Your task to perform on an android device: Clear all items from cart on bestbuy. Search for energizer triple a on bestbuy, select the first entry, and add it to the cart. Image 0: 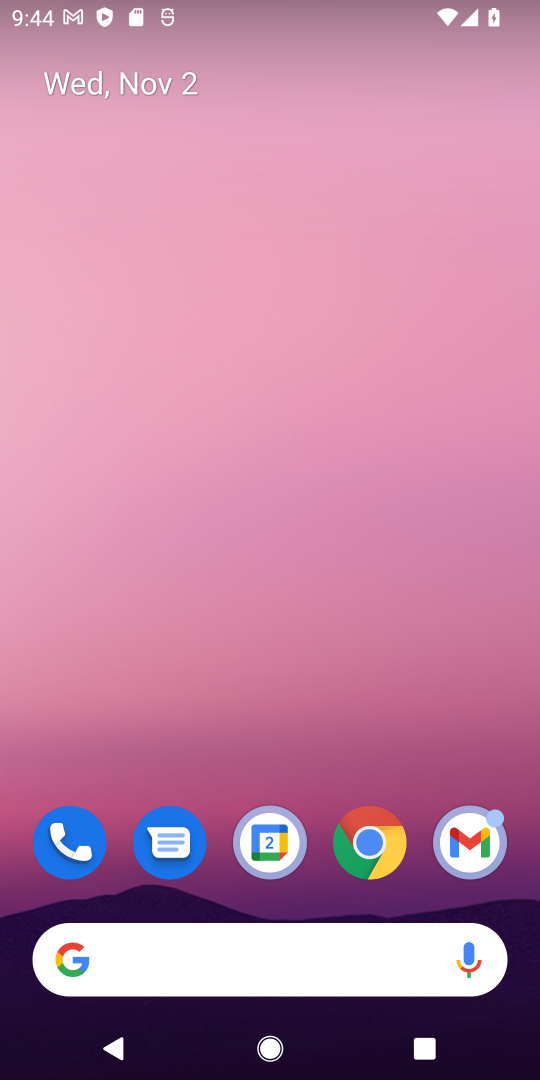
Step 0: drag from (260, 574) to (295, 223)
Your task to perform on an android device: Clear all items from cart on bestbuy. Search for energizer triple a on bestbuy, select the first entry, and add it to the cart. Image 1: 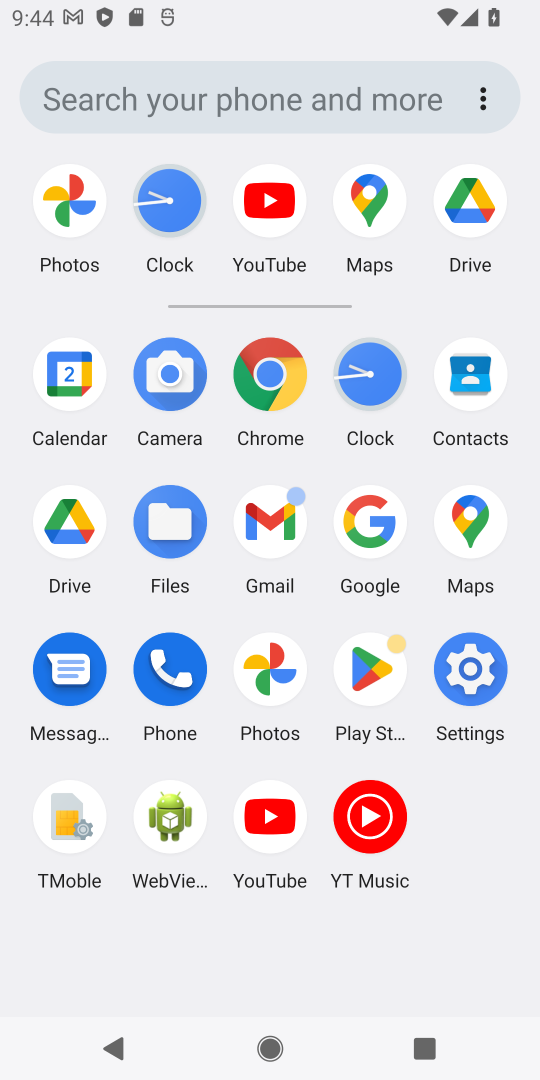
Step 1: click (357, 520)
Your task to perform on an android device: Clear all items from cart on bestbuy. Search for energizer triple a on bestbuy, select the first entry, and add it to the cart. Image 2: 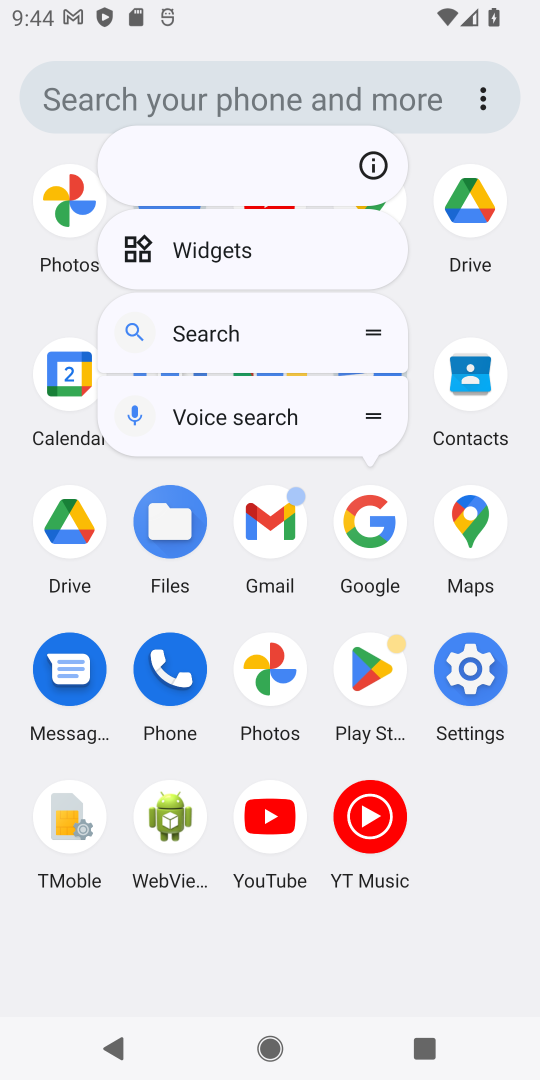
Step 2: click (367, 508)
Your task to perform on an android device: Clear all items from cart on bestbuy. Search for energizer triple a on bestbuy, select the first entry, and add it to the cart. Image 3: 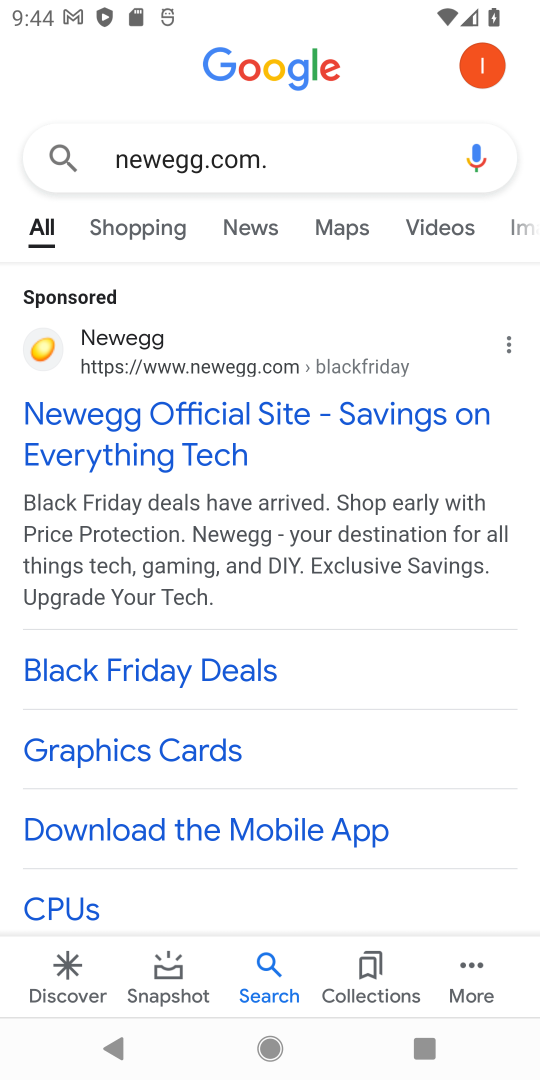
Step 3: click (212, 151)
Your task to perform on an android device: Clear all items from cart on bestbuy. Search for energizer triple a on bestbuy, select the first entry, and add it to the cart. Image 4: 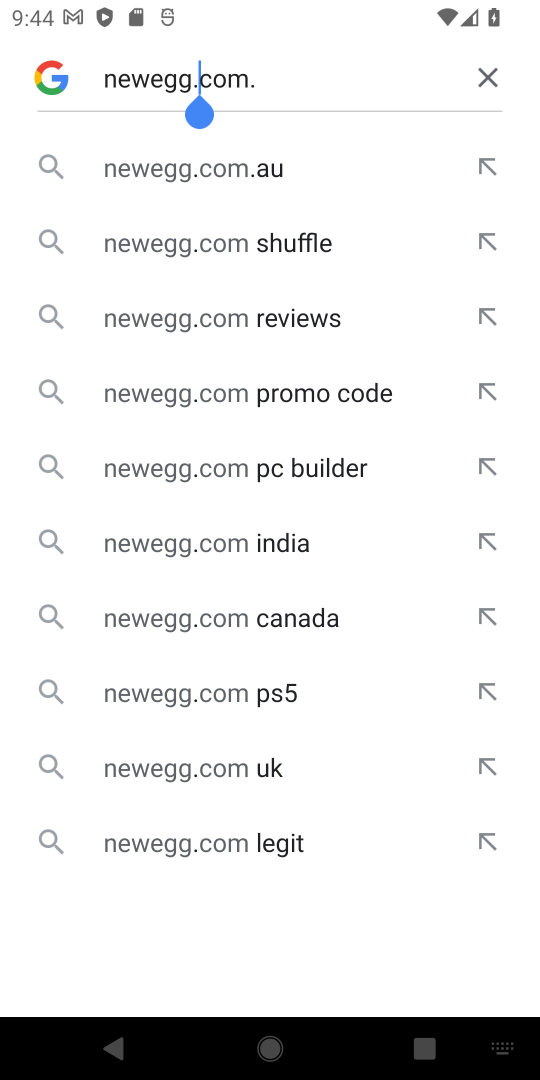
Step 4: click (490, 87)
Your task to perform on an android device: Clear all items from cart on bestbuy. Search for energizer triple a on bestbuy, select the first entry, and add it to the cart. Image 5: 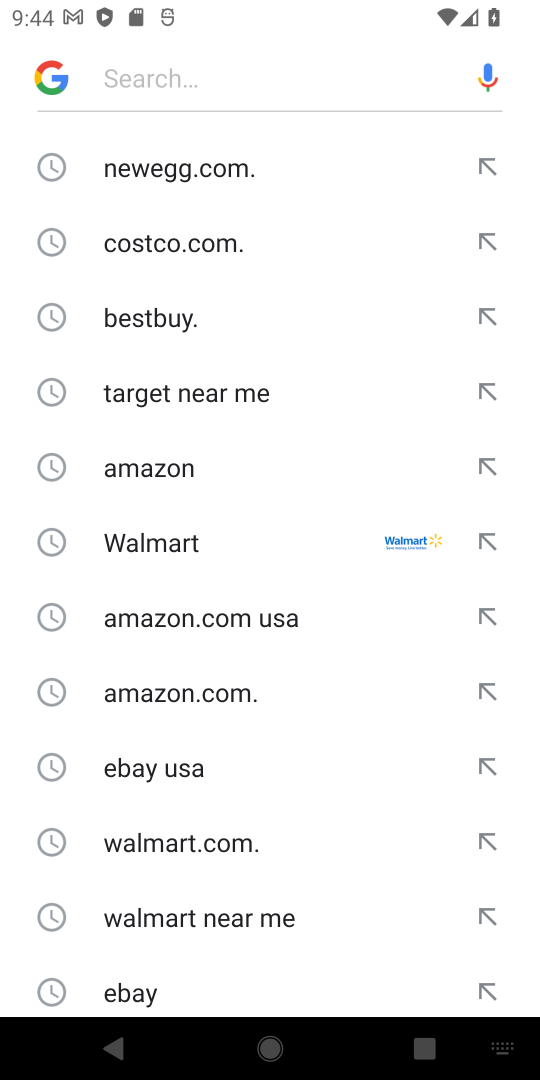
Step 5: click (153, 307)
Your task to perform on an android device: Clear all items from cart on bestbuy. Search for energizer triple a on bestbuy, select the first entry, and add it to the cart. Image 6: 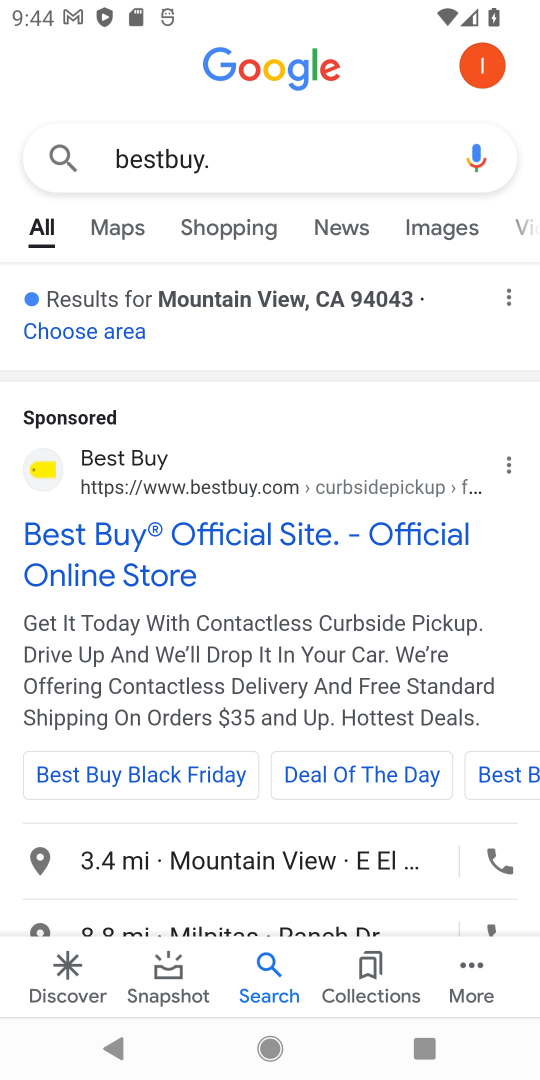
Step 6: click (50, 471)
Your task to perform on an android device: Clear all items from cart on bestbuy. Search for energizer triple a on bestbuy, select the first entry, and add it to the cart. Image 7: 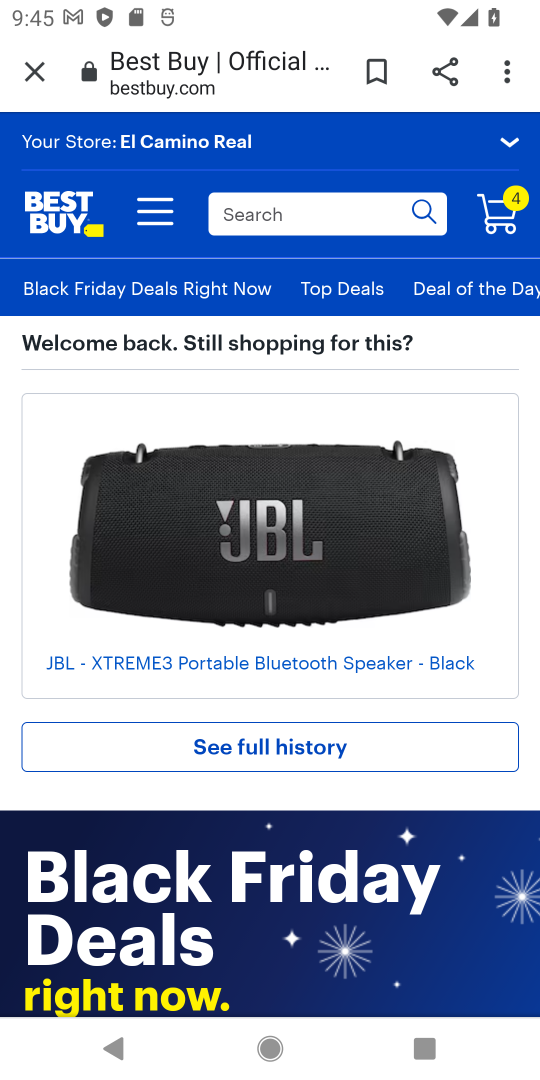
Step 7: click (306, 205)
Your task to perform on an android device: Clear all items from cart on bestbuy. Search for energizer triple a on bestbuy, select the first entry, and add it to the cart. Image 8: 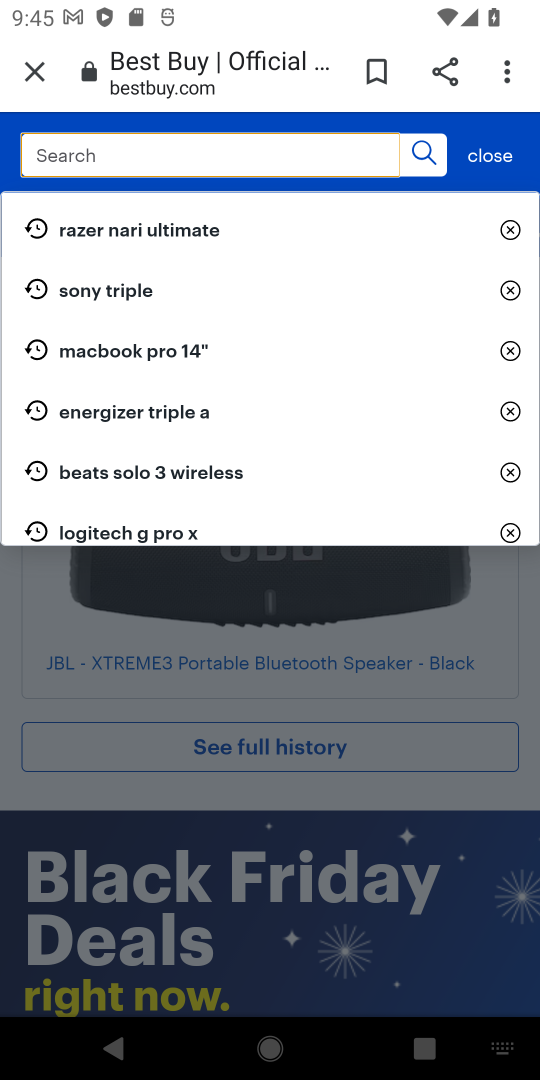
Step 8: type "energizer triple  "
Your task to perform on an android device: Clear all items from cart on bestbuy. Search for energizer triple a on bestbuy, select the first entry, and add it to the cart. Image 9: 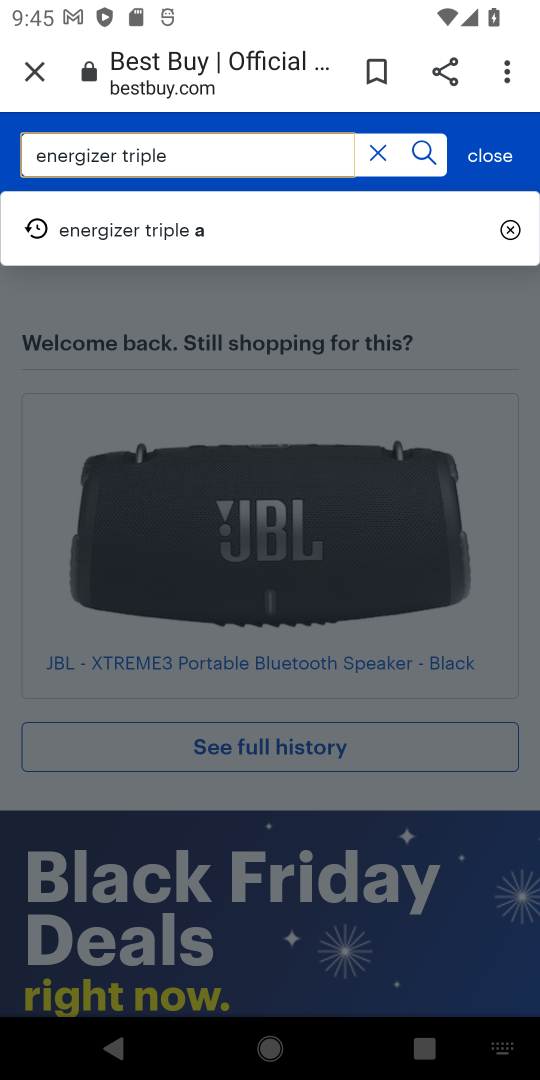
Step 9: click (279, 223)
Your task to perform on an android device: Clear all items from cart on bestbuy. Search for energizer triple a on bestbuy, select the first entry, and add it to the cart. Image 10: 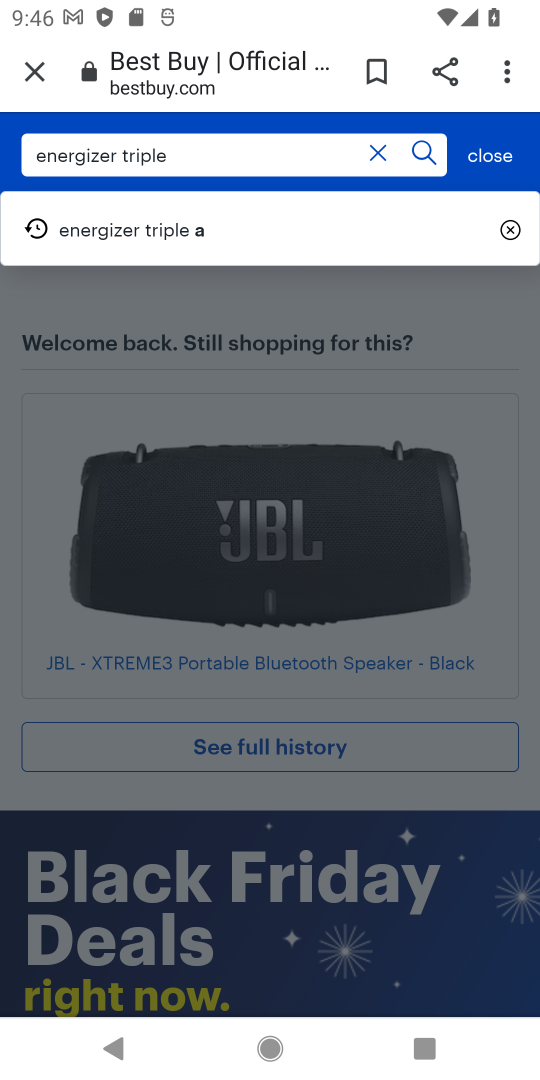
Step 10: click (180, 231)
Your task to perform on an android device: Clear all items from cart on bestbuy. Search for energizer triple a on bestbuy, select the first entry, and add it to the cart. Image 11: 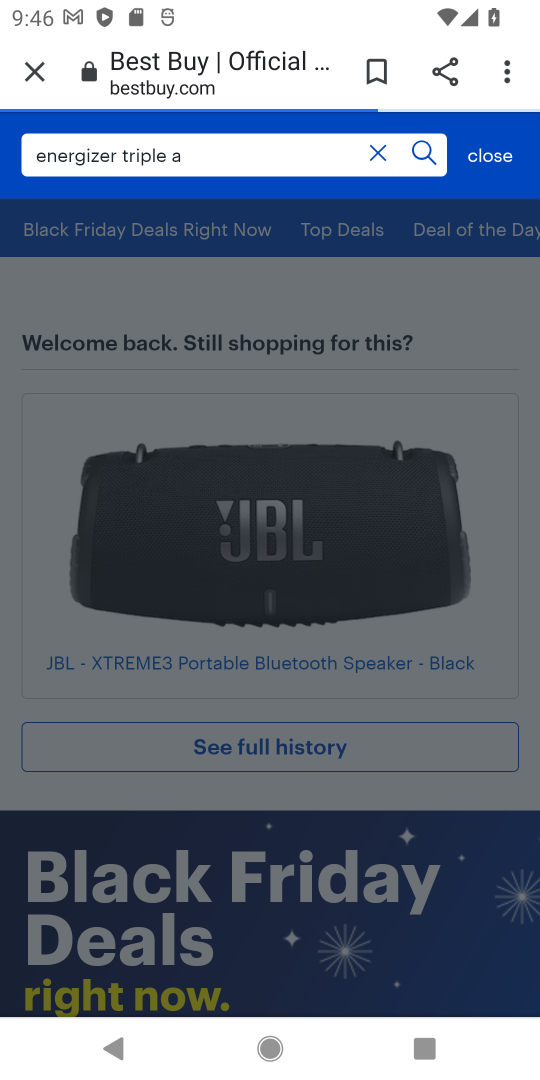
Step 11: click (121, 229)
Your task to perform on an android device: Clear all items from cart on bestbuy. Search for energizer triple a on bestbuy, select the first entry, and add it to the cart. Image 12: 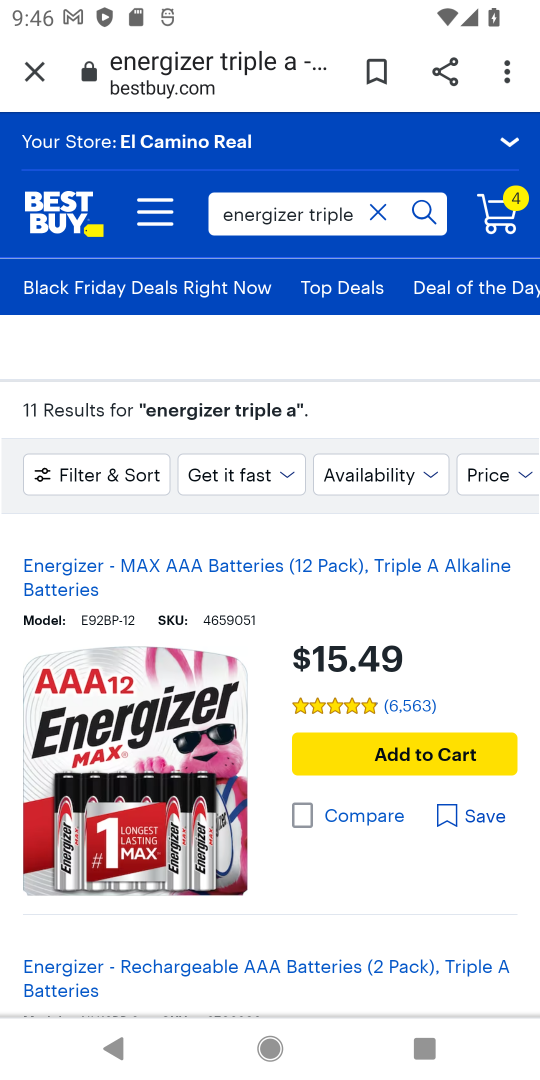
Step 12: drag from (283, 931) to (284, 741)
Your task to perform on an android device: Clear all items from cart on bestbuy. Search for energizer triple a on bestbuy, select the first entry, and add it to the cart. Image 13: 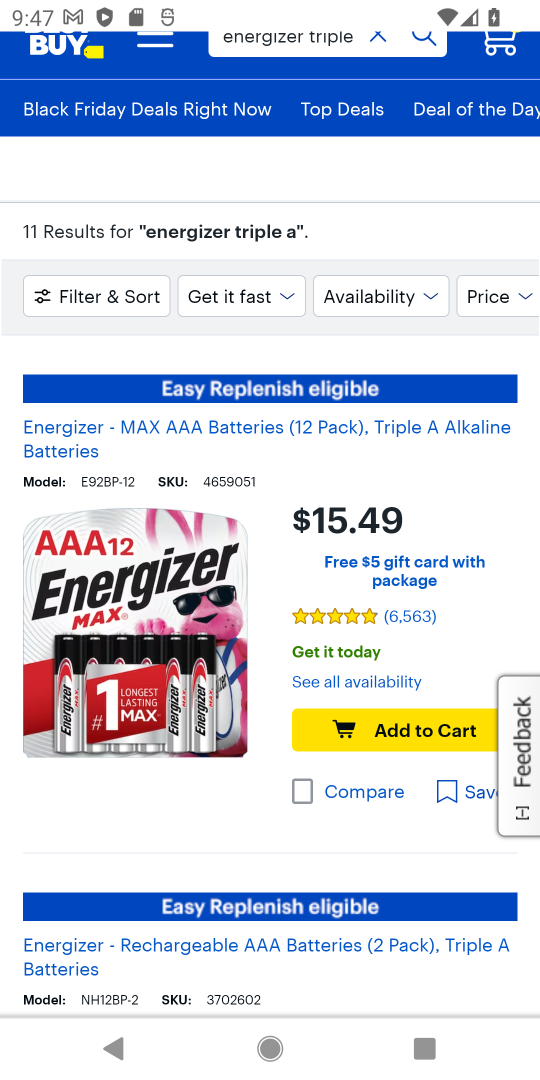
Step 13: click (354, 721)
Your task to perform on an android device: Clear all items from cart on bestbuy. Search for energizer triple a on bestbuy, select the first entry, and add it to the cart. Image 14: 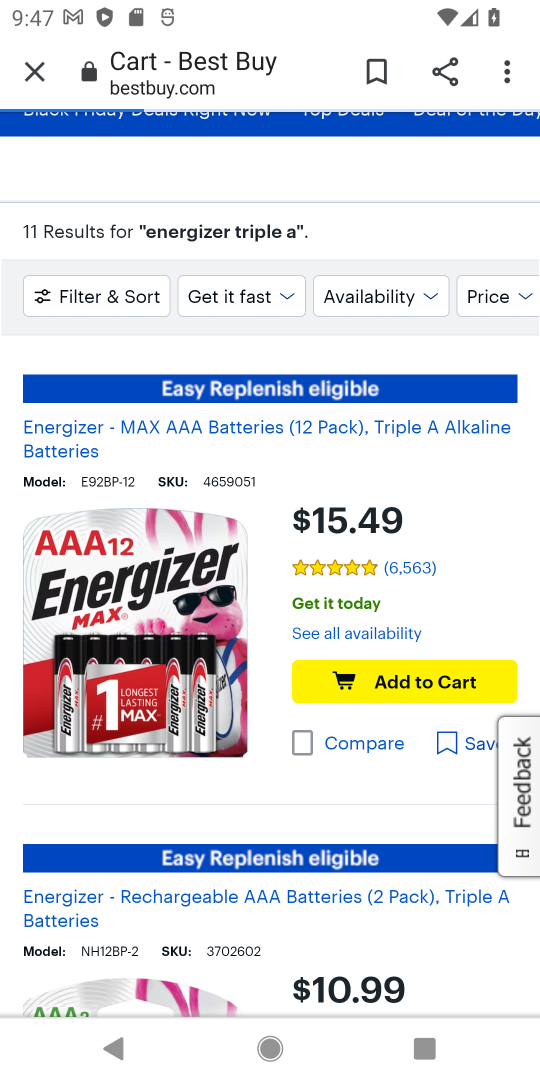
Step 14: task complete